Your task to perform on an android device: toggle show notifications on the lock screen Image 0: 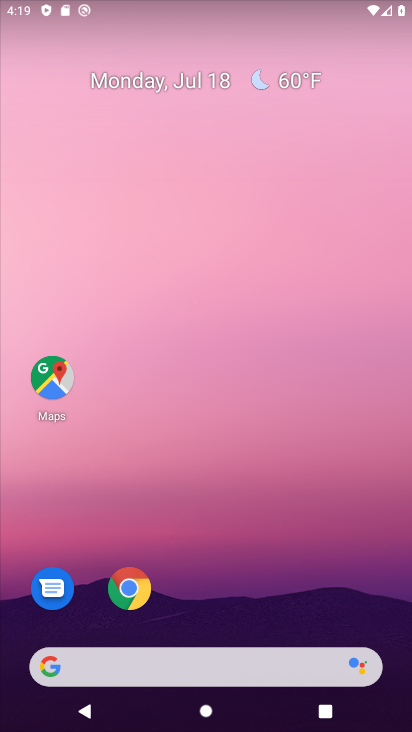
Step 0: press home button
Your task to perform on an android device: toggle show notifications on the lock screen Image 1: 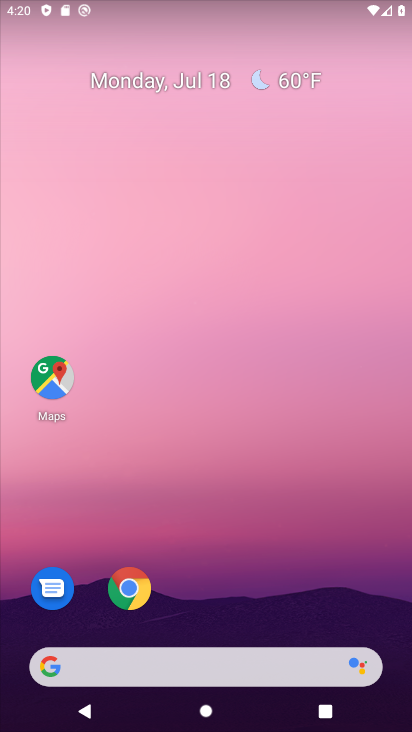
Step 1: drag from (219, 625) to (187, 38)
Your task to perform on an android device: toggle show notifications on the lock screen Image 2: 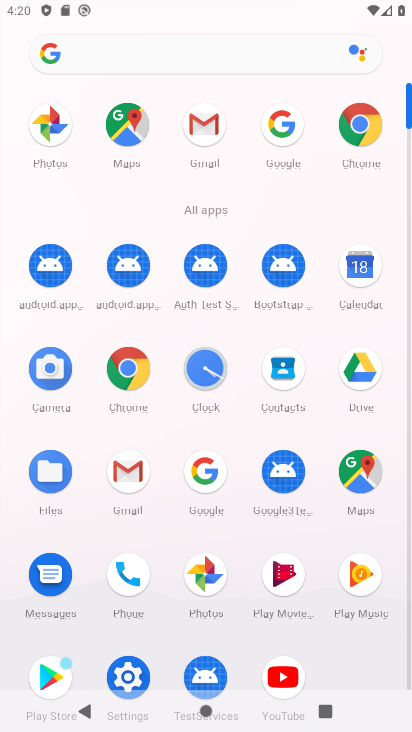
Step 2: click (127, 664)
Your task to perform on an android device: toggle show notifications on the lock screen Image 3: 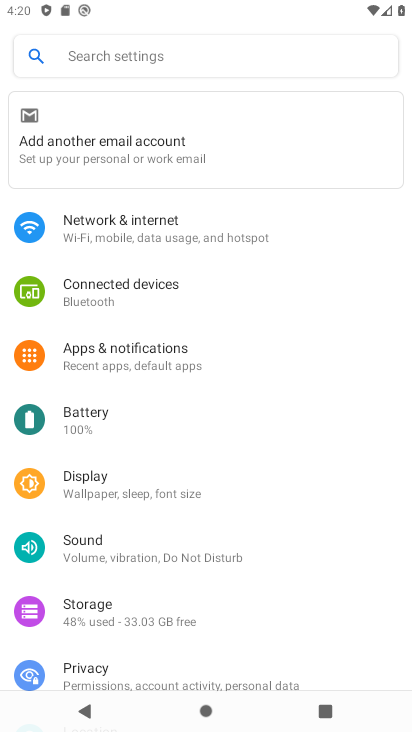
Step 3: click (199, 346)
Your task to perform on an android device: toggle show notifications on the lock screen Image 4: 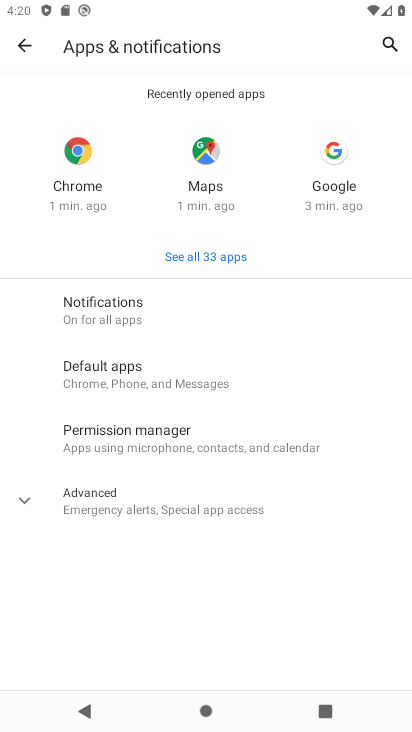
Step 4: click (158, 303)
Your task to perform on an android device: toggle show notifications on the lock screen Image 5: 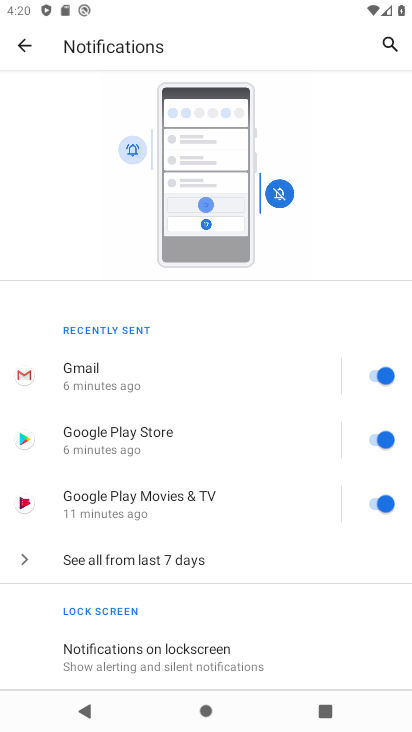
Step 5: click (227, 650)
Your task to perform on an android device: toggle show notifications on the lock screen Image 6: 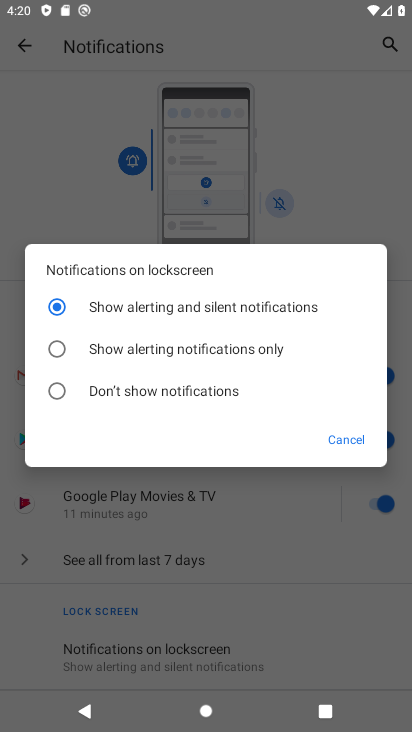
Step 6: click (59, 346)
Your task to perform on an android device: toggle show notifications on the lock screen Image 7: 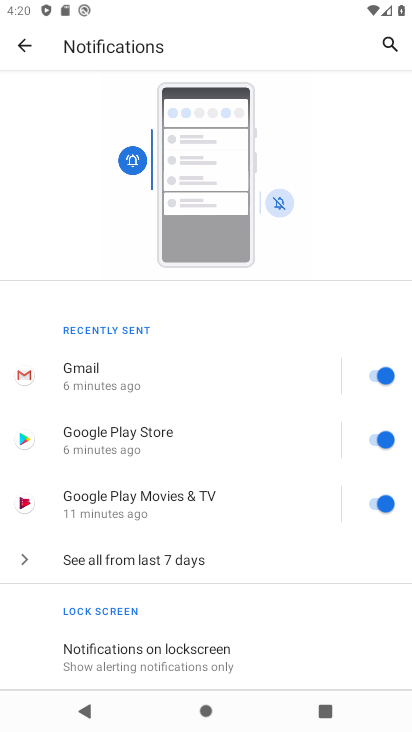
Step 7: task complete